Your task to perform on an android device: turn on the 24-hour format for clock Image 0: 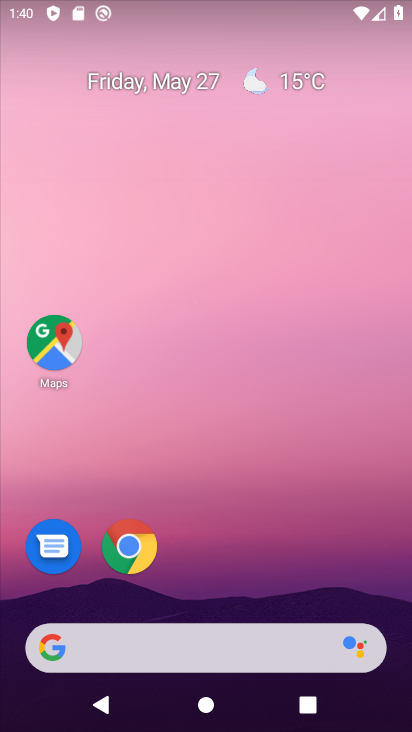
Step 0: drag from (373, 599) to (364, 122)
Your task to perform on an android device: turn on the 24-hour format for clock Image 1: 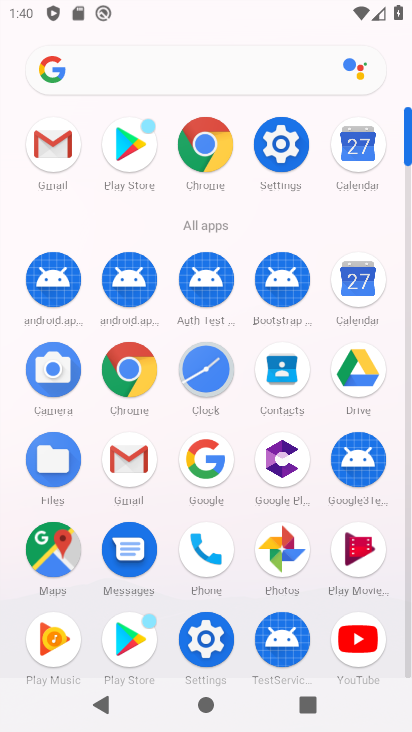
Step 1: click (206, 375)
Your task to perform on an android device: turn on the 24-hour format for clock Image 2: 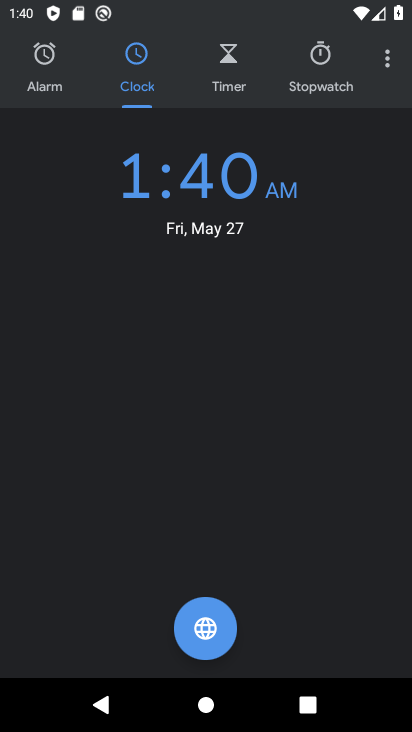
Step 2: drag from (388, 62) to (246, 122)
Your task to perform on an android device: turn on the 24-hour format for clock Image 3: 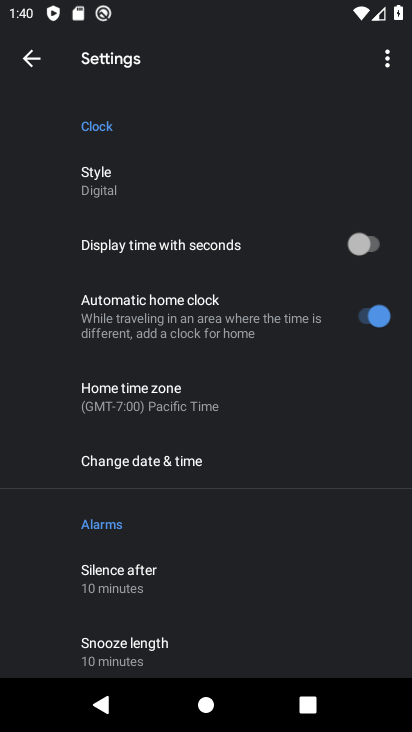
Step 3: click (205, 472)
Your task to perform on an android device: turn on the 24-hour format for clock Image 4: 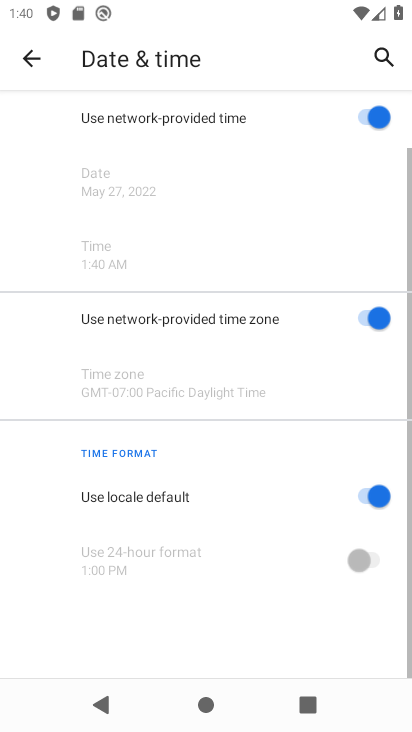
Step 4: drag from (253, 591) to (259, 175)
Your task to perform on an android device: turn on the 24-hour format for clock Image 5: 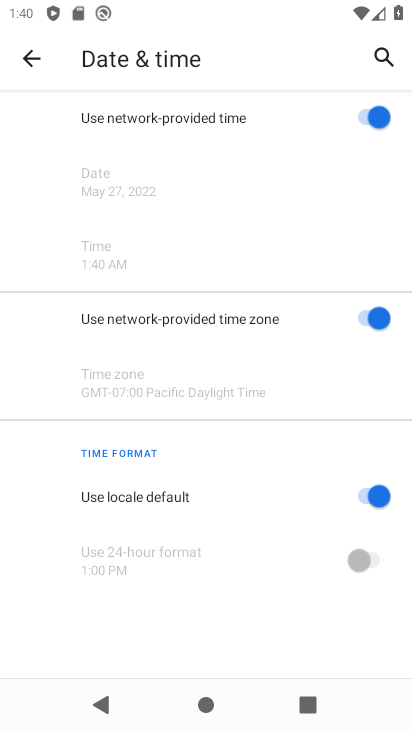
Step 5: click (364, 495)
Your task to perform on an android device: turn on the 24-hour format for clock Image 6: 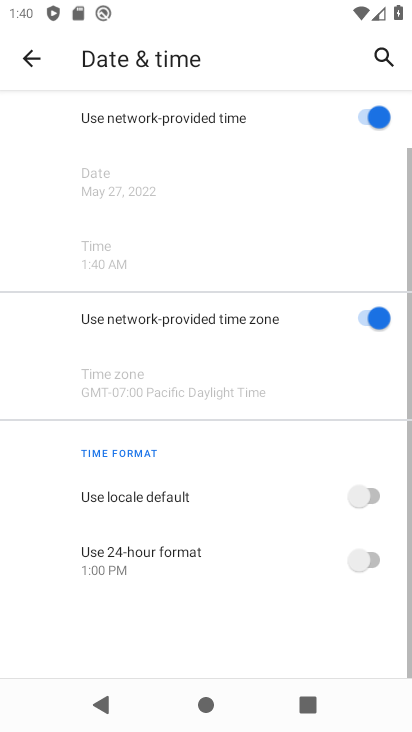
Step 6: click (378, 562)
Your task to perform on an android device: turn on the 24-hour format for clock Image 7: 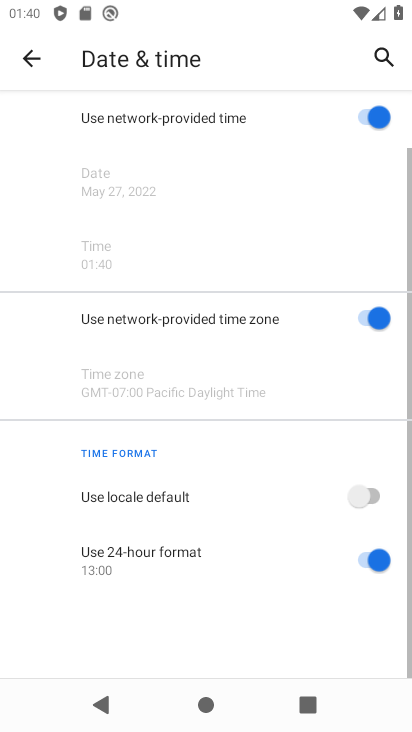
Step 7: task complete